Your task to perform on an android device: clear all cookies in the chrome app Image 0: 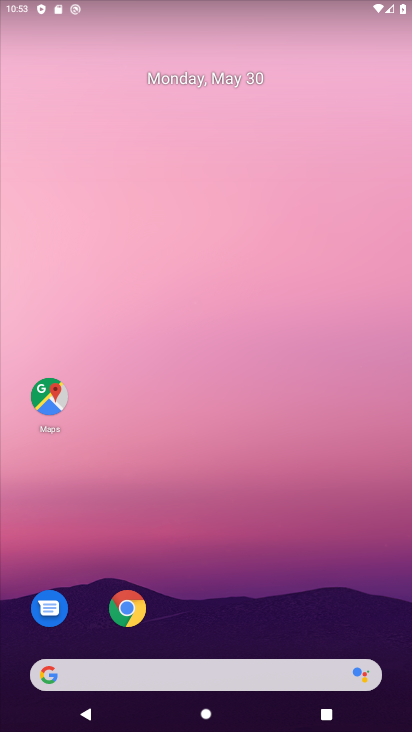
Step 0: click (129, 613)
Your task to perform on an android device: clear all cookies in the chrome app Image 1: 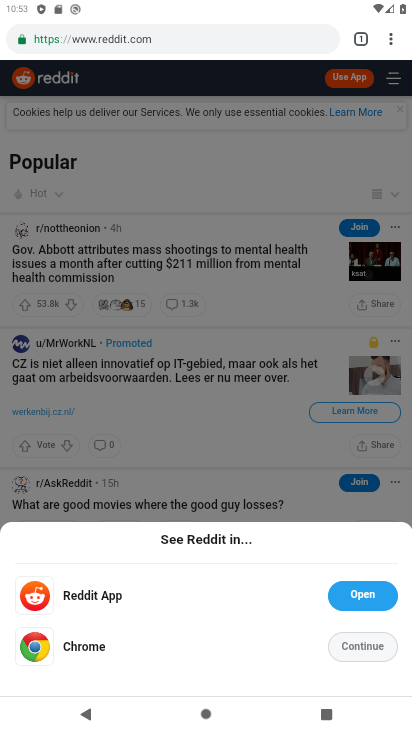
Step 1: click (389, 37)
Your task to perform on an android device: clear all cookies in the chrome app Image 2: 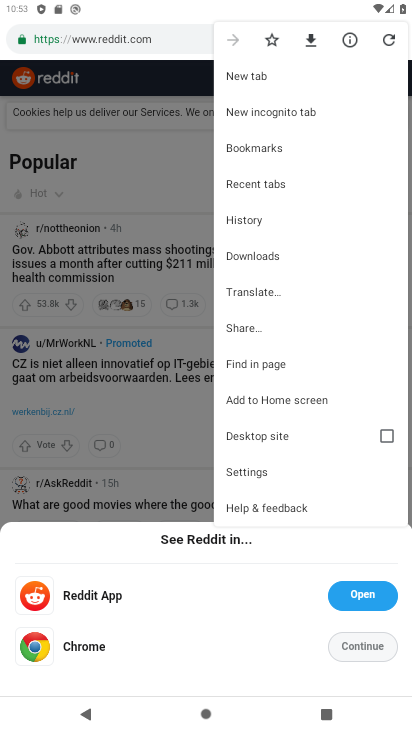
Step 2: click (253, 470)
Your task to perform on an android device: clear all cookies in the chrome app Image 3: 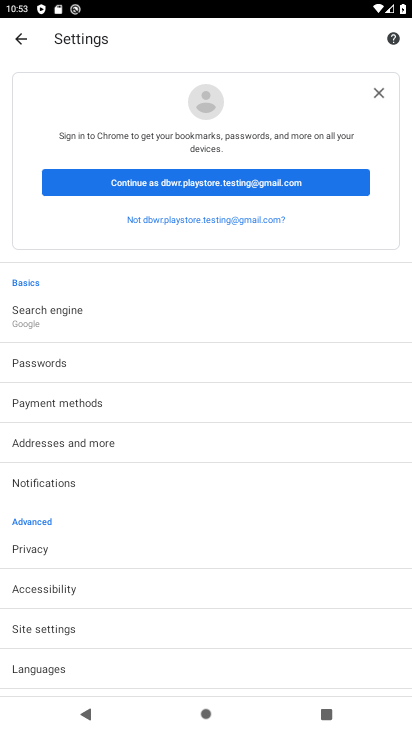
Step 3: click (40, 547)
Your task to perform on an android device: clear all cookies in the chrome app Image 4: 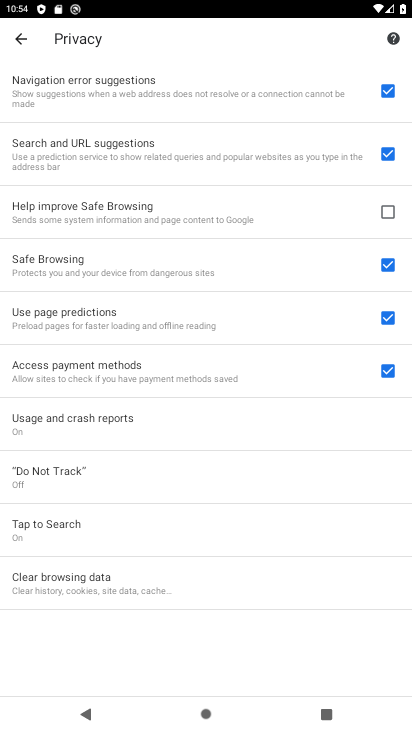
Step 4: click (81, 587)
Your task to perform on an android device: clear all cookies in the chrome app Image 5: 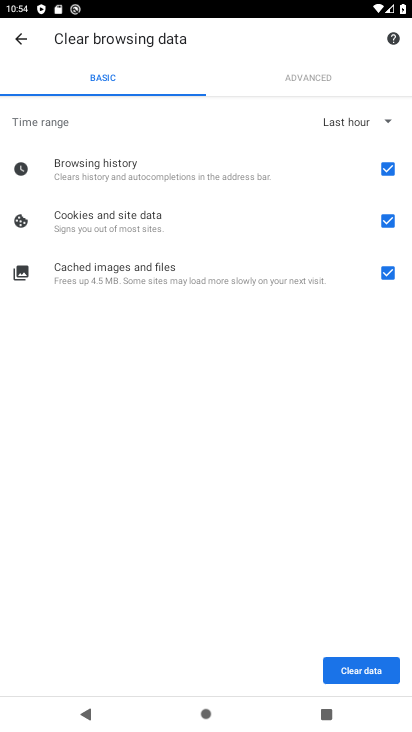
Step 5: click (384, 161)
Your task to perform on an android device: clear all cookies in the chrome app Image 6: 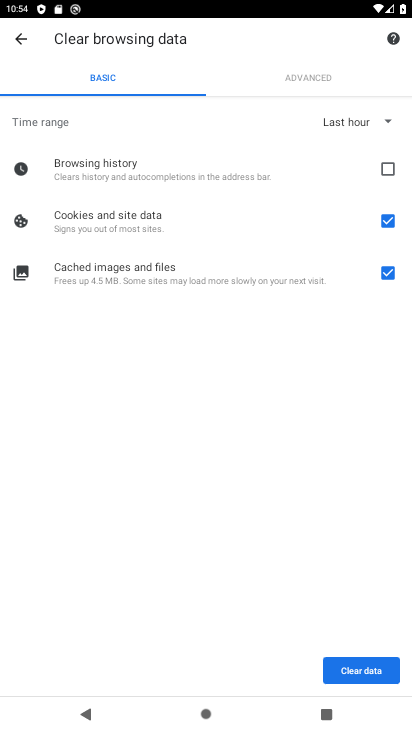
Step 6: click (378, 278)
Your task to perform on an android device: clear all cookies in the chrome app Image 7: 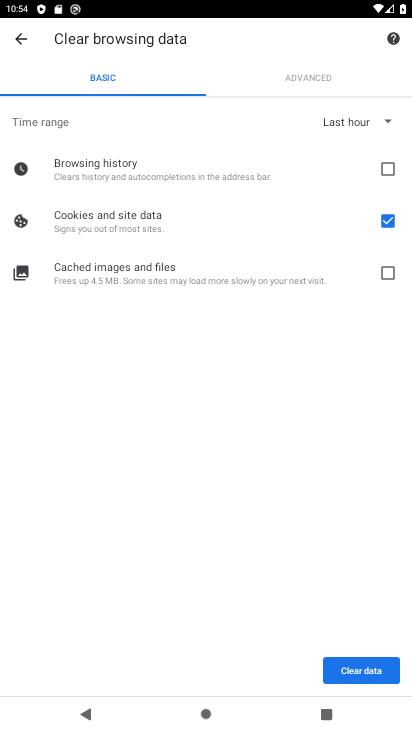
Step 7: click (370, 675)
Your task to perform on an android device: clear all cookies in the chrome app Image 8: 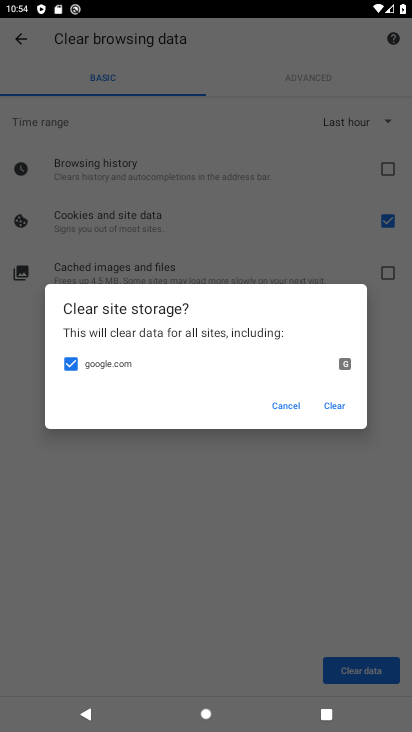
Step 8: click (332, 408)
Your task to perform on an android device: clear all cookies in the chrome app Image 9: 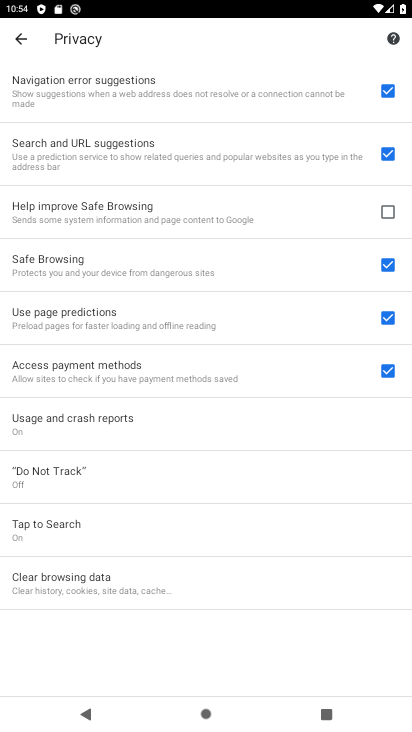
Step 9: task complete